Your task to perform on an android device: turn on the 12-hour format for clock Image 0: 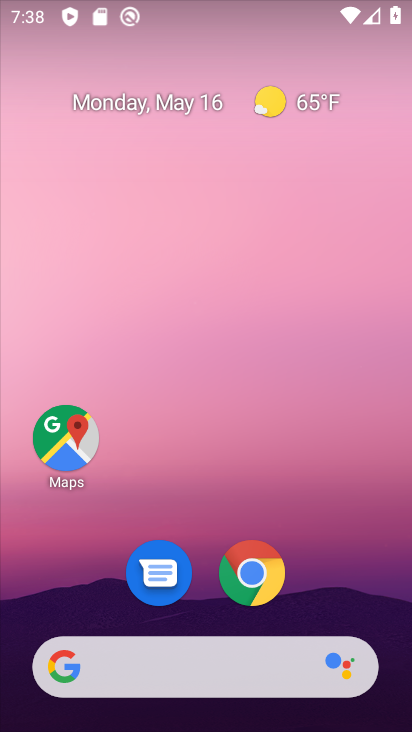
Step 0: drag from (329, 590) to (291, 0)
Your task to perform on an android device: turn on the 12-hour format for clock Image 1: 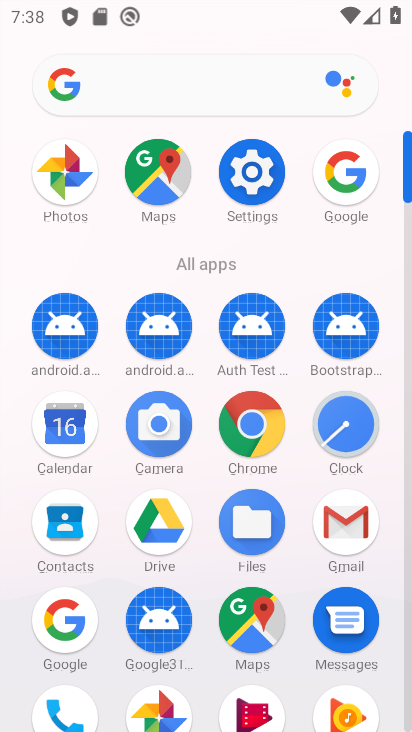
Step 1: click (334, 421)
Your task to perform on an android device: turn on the 12-hour format for clock Image 2: 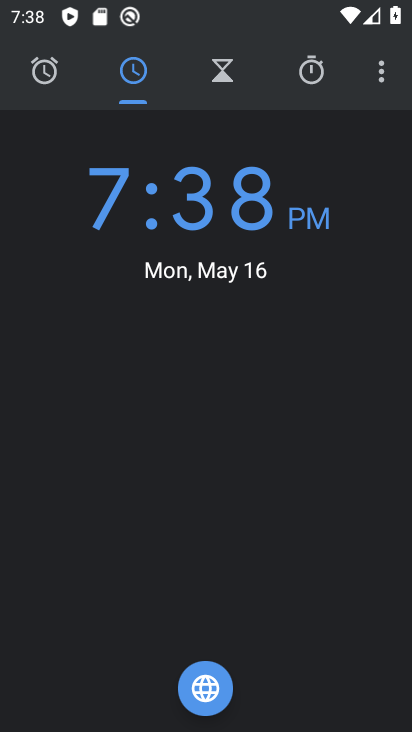
Step 2: click (390, 74)
Your task to perform on an android device: turn on the 12-hour format for clock Image 3: 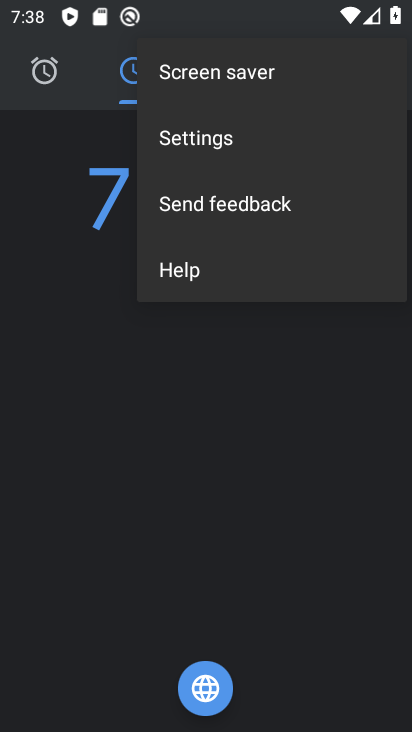
Step 3: click (277, 147)
Your task to perform on an android device: turn on the 12-hour format for clock Image 4: 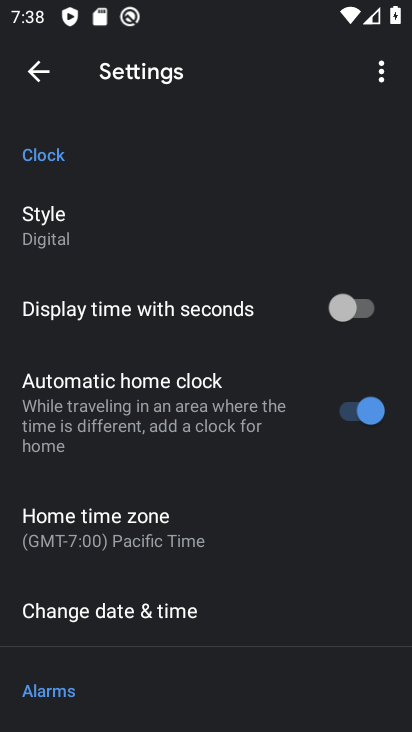
Step 4: click (190, 600)
Your task to perform on an android device: turn on the 12-hour format for clock Image 5: 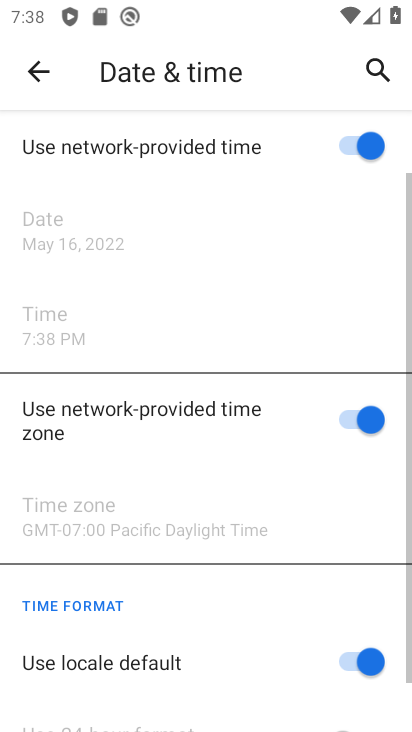
Step 5: task complete